Your task to perform on an android device: change alarm snooze length Image 0: 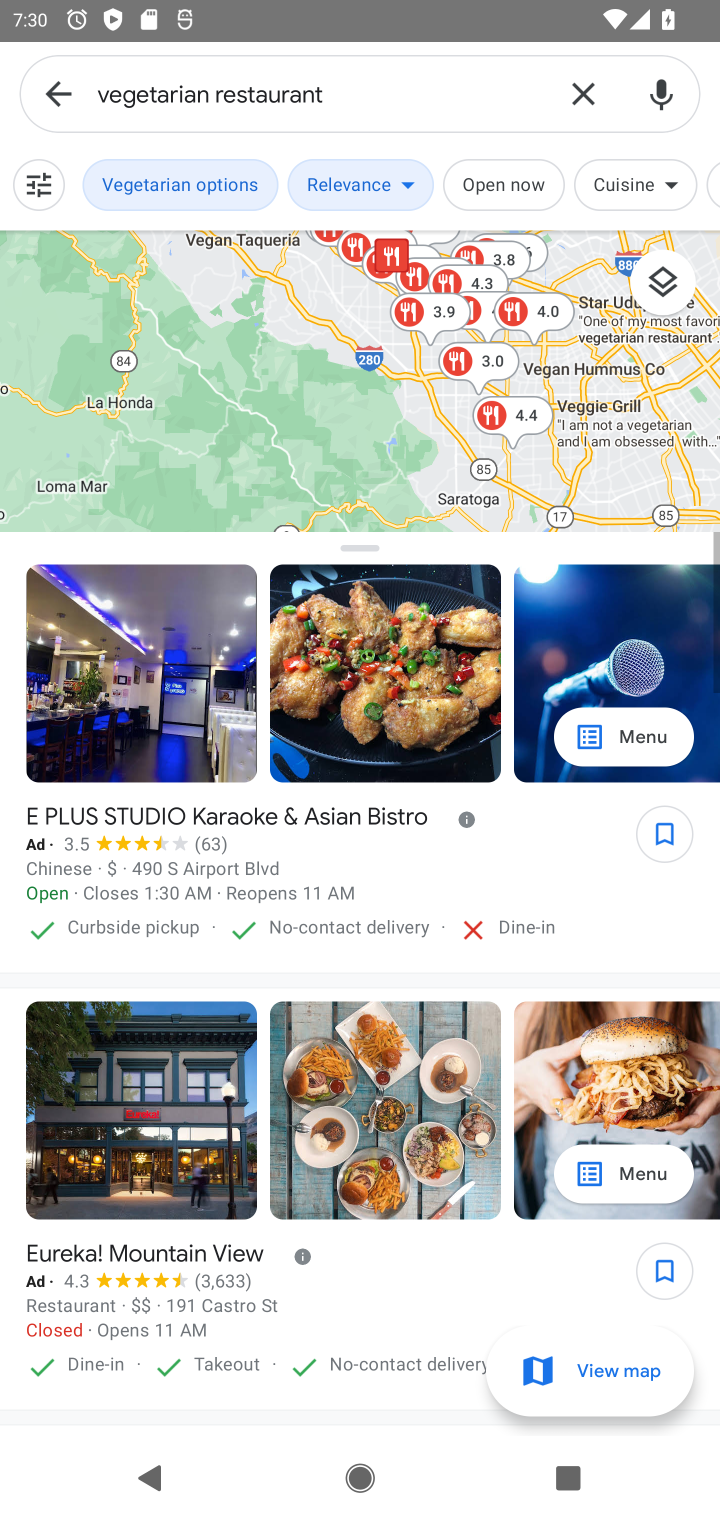
Step 0: press home button
Your task to perform on an android device: change alarm snooze length Image 1: 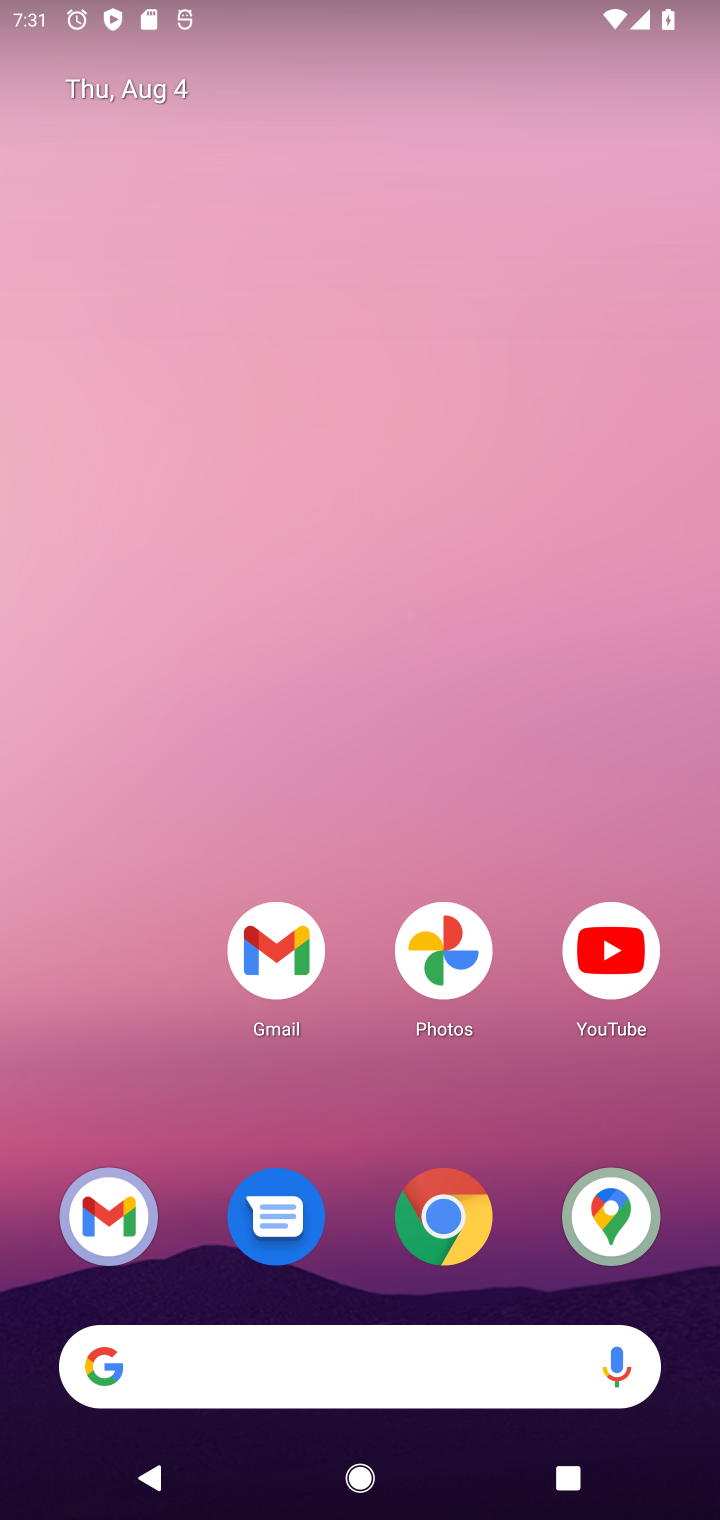
Step 1: drag from (518, 1142) to (503, 345)
Your task to perform on an android device: change alarm snooze length Image 2: 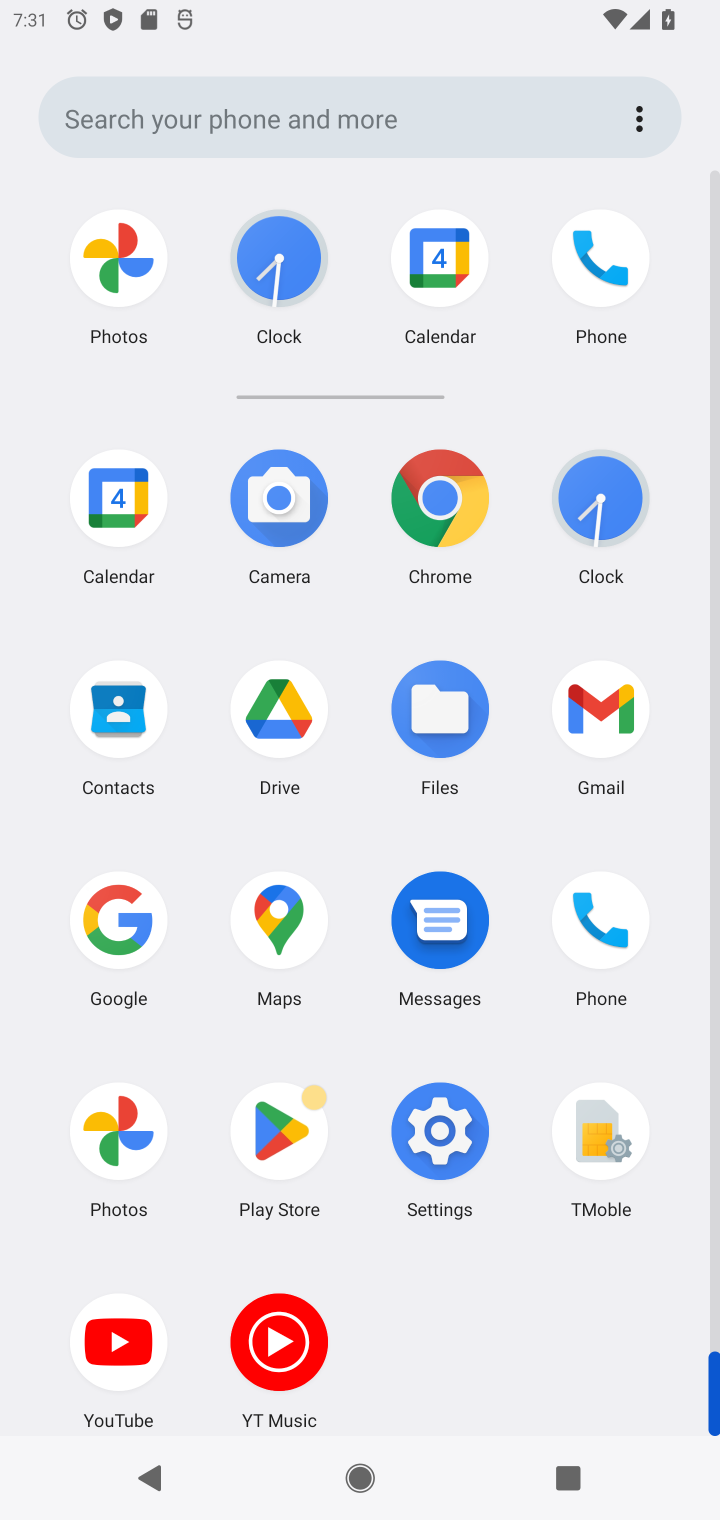
Step 2: click (259, 282)
Your task to perform on an android device: change alarm snooze length Image 3: 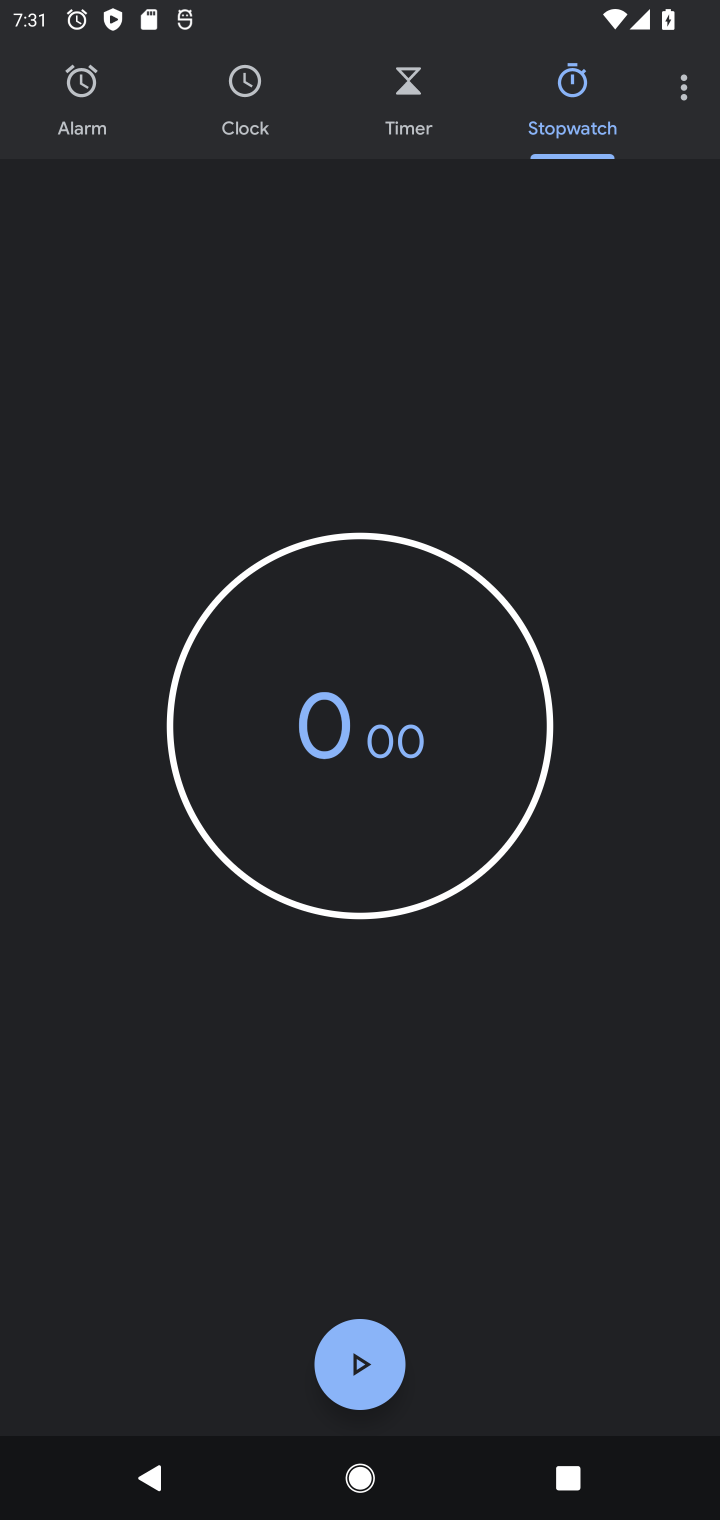
Step 3: click (694, 94)
Your task to perform on an android device: change alarm snooze length Image 4: 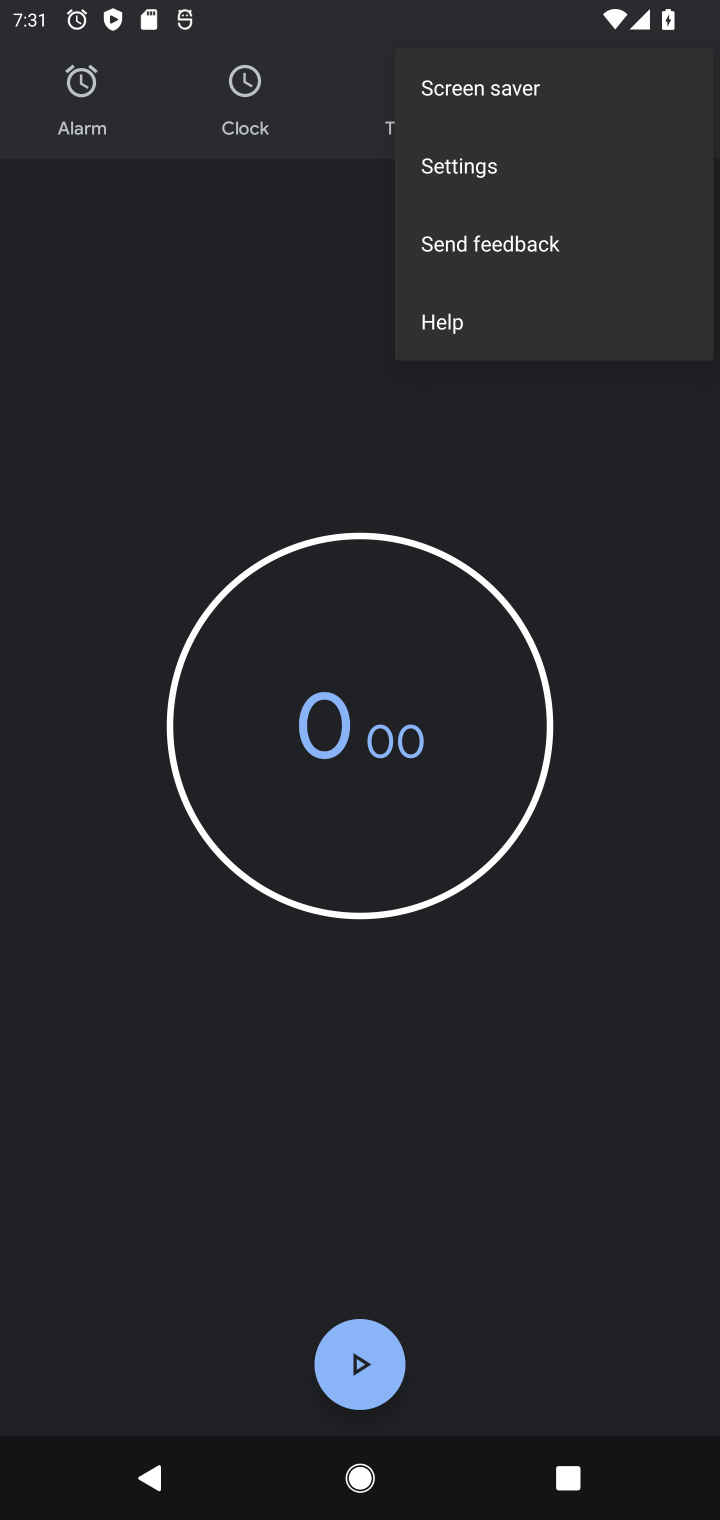
Step 4: click (480, 177)
Your task to perform on an android device: change alarm snooze length Image 5: 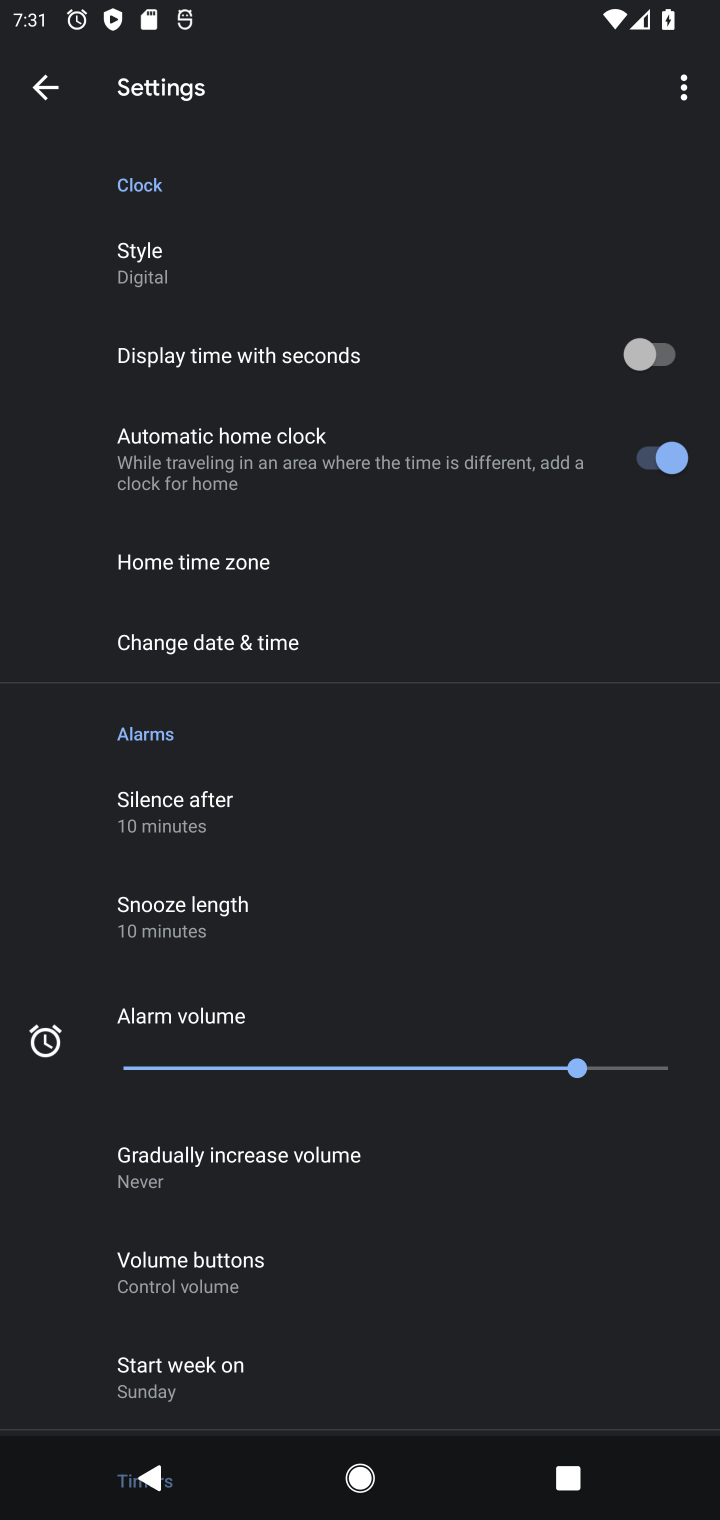
Step 5: click (246, 916)
Your task to perform on an android device: change alarm snooze length Image 6: 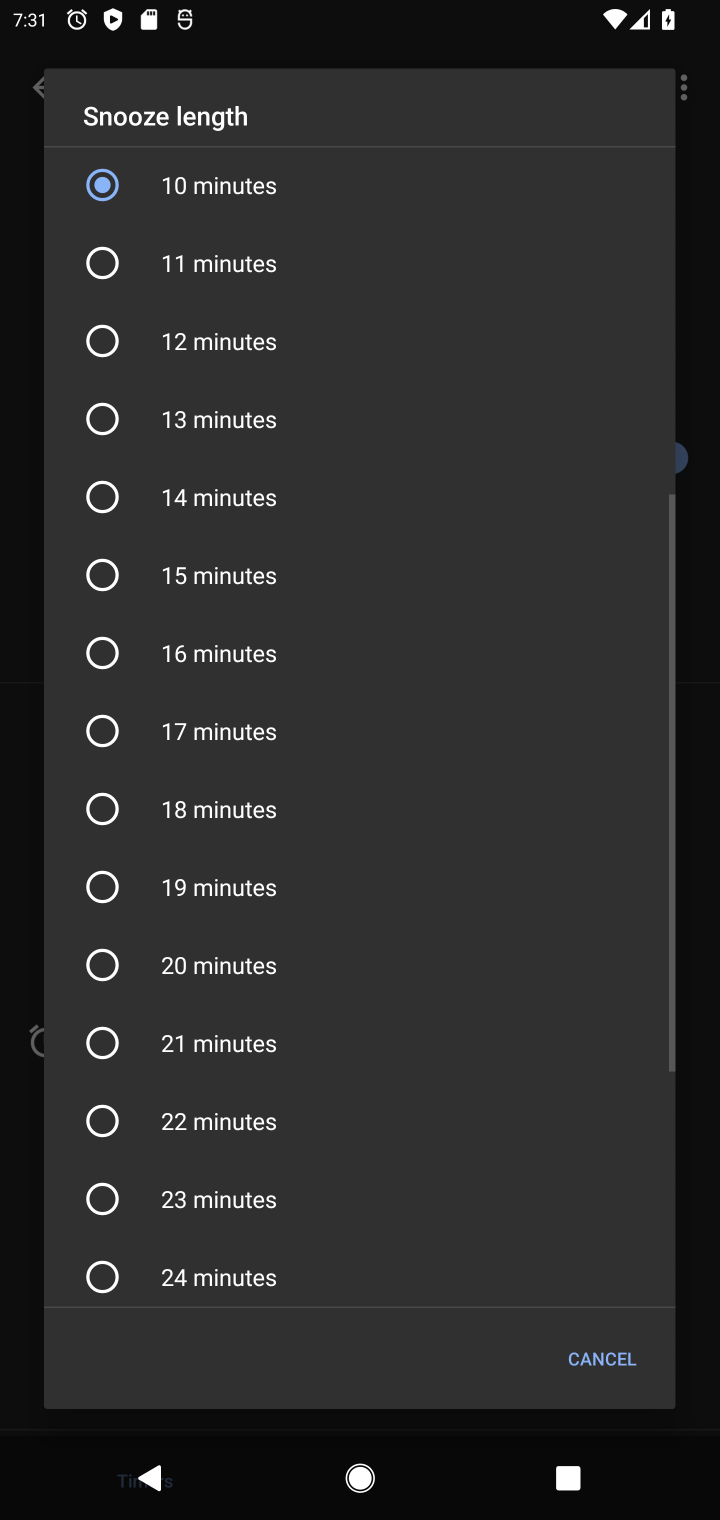
Step 6: click (109, 969)
Your task to perform on an android device: change alarm snooze length Image 7: 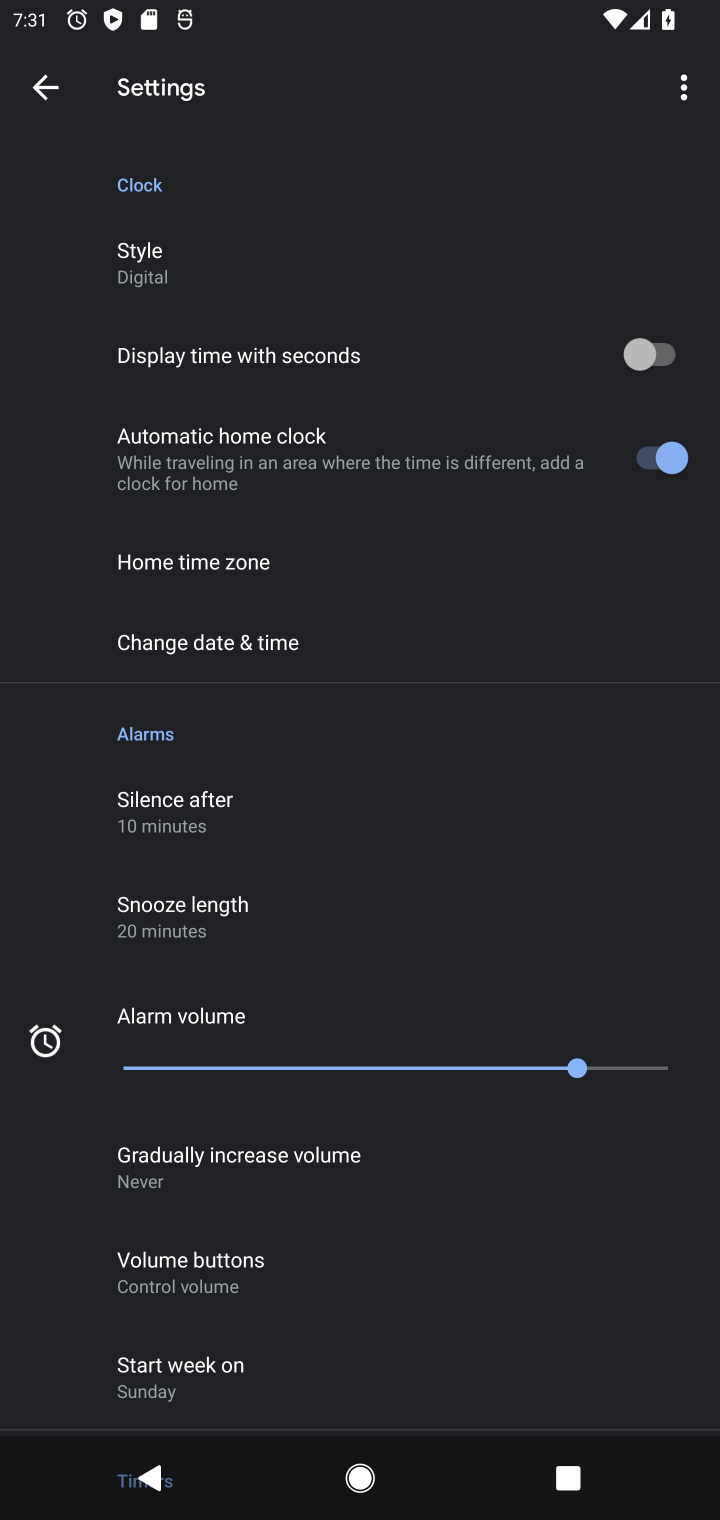
Step 7: task complete